Your task to perform on an android device: Show me the alarms in the clock app Image 0: 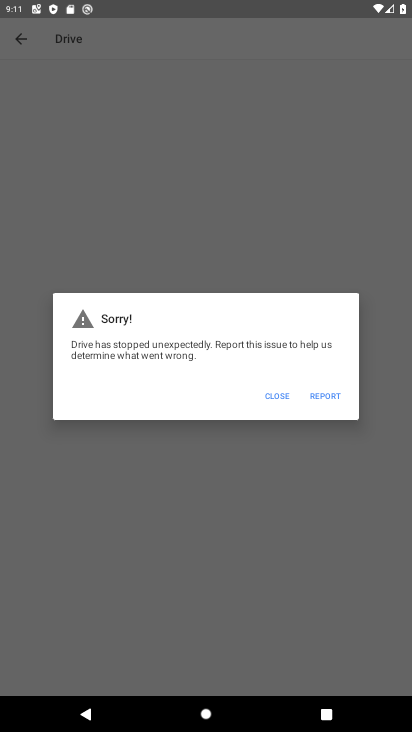
Step 0: press home button
Your task to perform on an android device: Show me the alarms in the clock app Image 1: 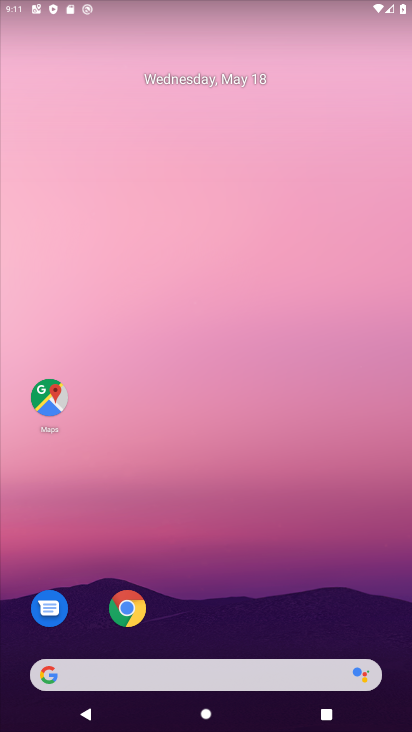
Step 1: drag from (7, 679) to (281, 104)
Your task to perform on an android device: Show me the alarms in the clock app Image 2: 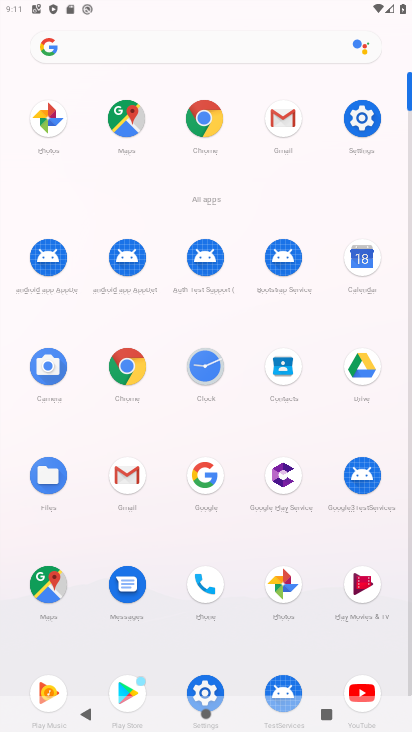
Step 2: click (214, 370)
Your task to perform on an android device: Show me the alarms in the clock app Image 3: 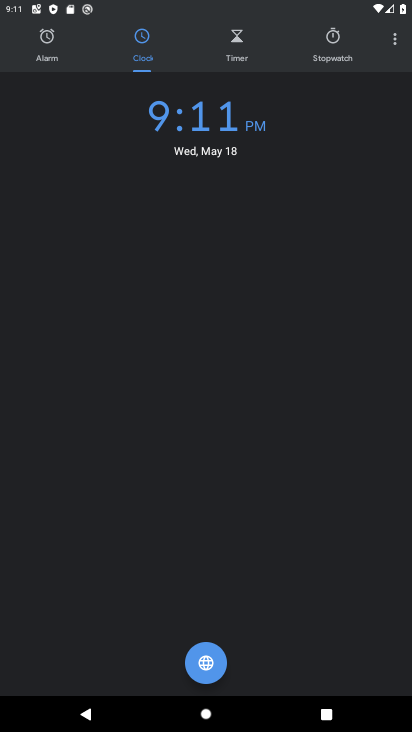
Step 3: click (58, 44)
Your task to perform on an android device: Show me the alarms in the clock app Image 4: 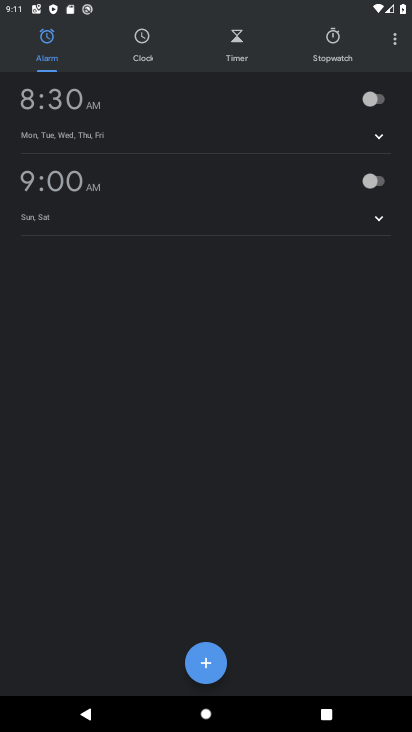
Step 4: task complete